Your task to perform on an android device: Go to sound settings Image 0: 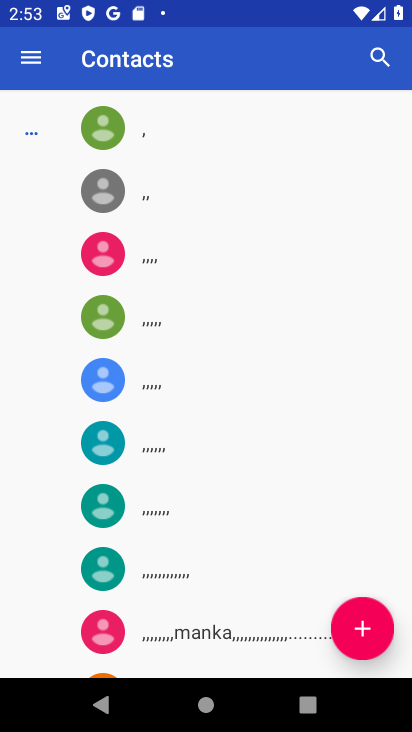
Step 0: press home button
Your task to perform on an android device: Go to sound settings Image 1: 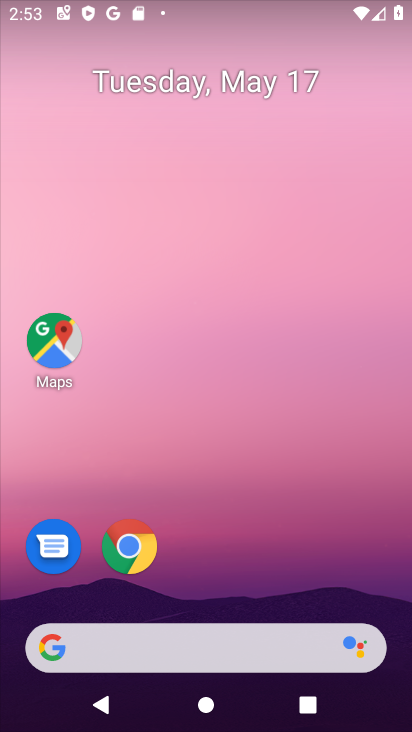
Step 1: drag from (387, 415) to (382, 324)
Your task to perform on an android device: Go to sound settings Image 2: 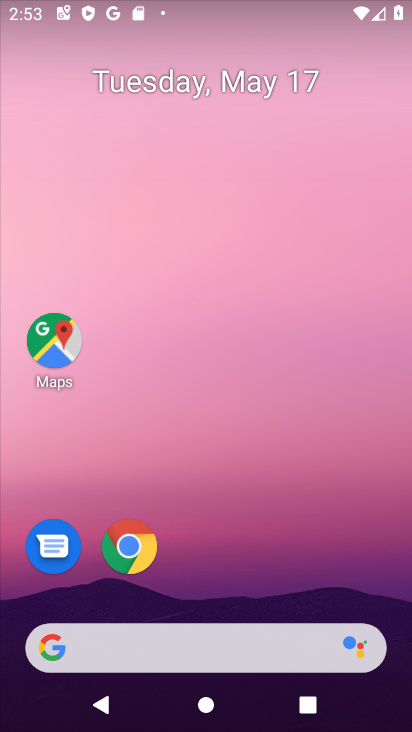
Step 2: drag from (397, 668) to (388, 342)
Your task to perform on an android device: Go to sound settings Image 3: 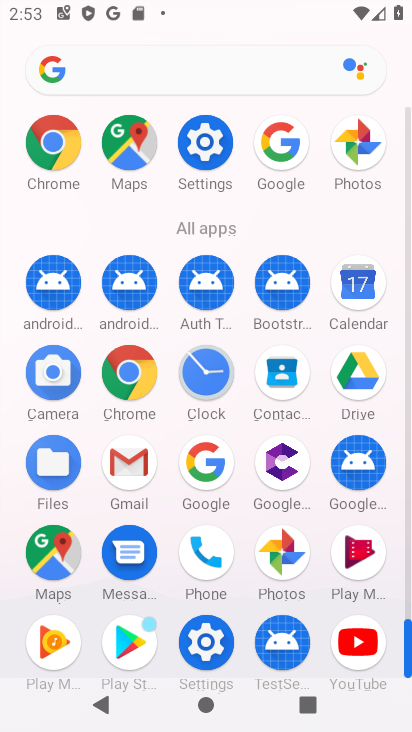
Step 3: click (206, 148)
Your task to perform on an android device: Go to sound settings Image 4: 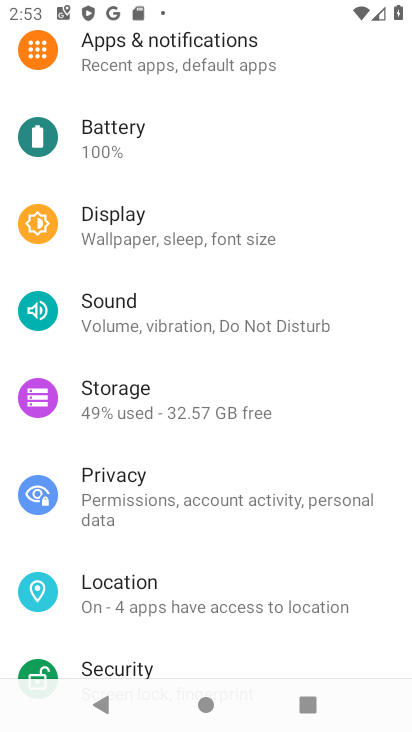
Step 4: click (104, 310)
Your task to perform on an android device: Go to sound settings Image 5: 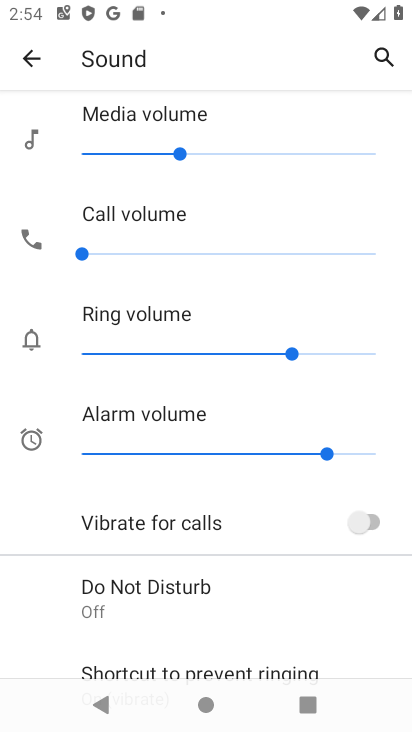
Step 5: task complete